Your task to perform on an android device: turn off translation in the chrome app Image 0: 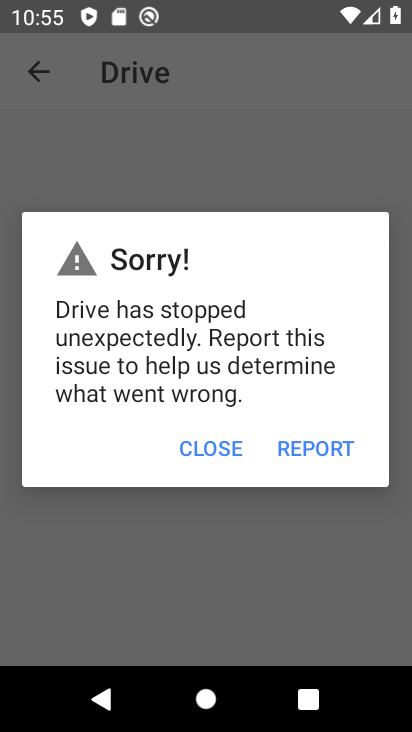
Step 0: press home button
Your task to perform on an android device: turn off translation in the chrome app Image 1: 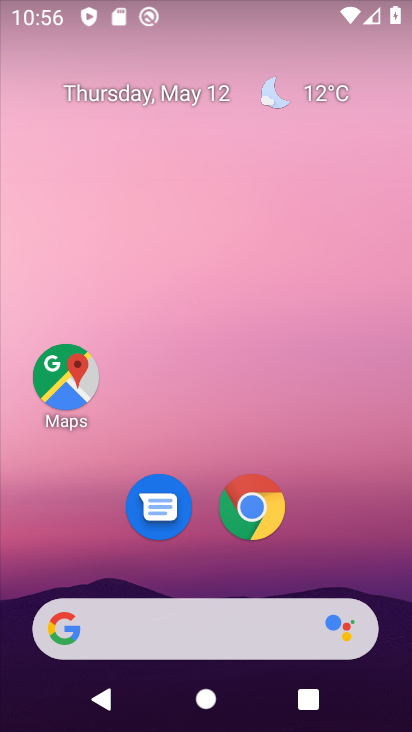
Step 1: drag from (196, 520) to (285, 155)
Your task to perform on an android device: turn off translation in the chrome app Image 2: 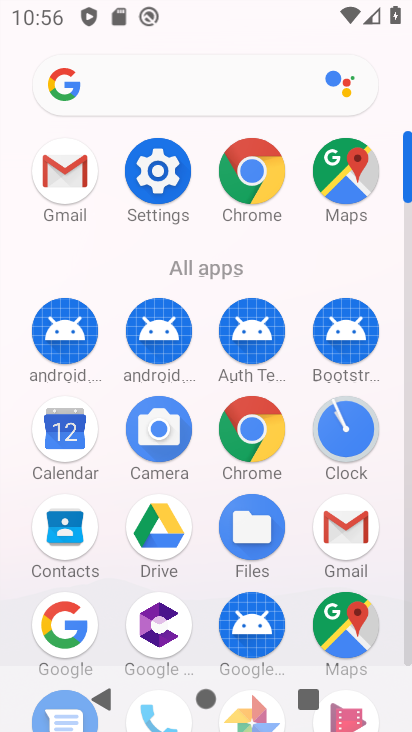
Step 2: click (255, 434)
Your task to perform on an android device: turn off translation in the chrome app Image 3: 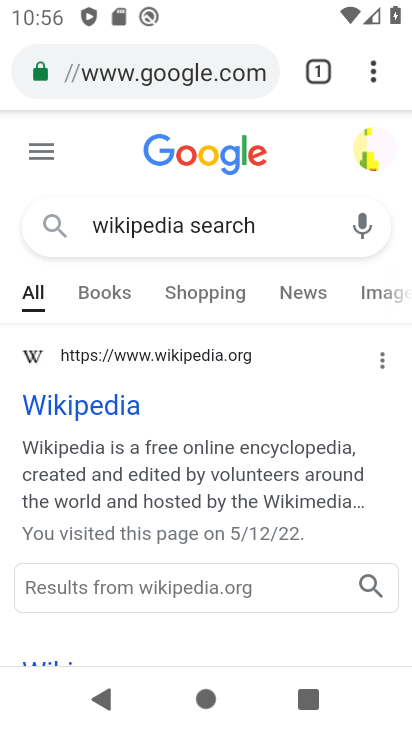
Step 3: click (376, 85)
Your task to perform on an android device: turn off translation in the chrome app Image 4: 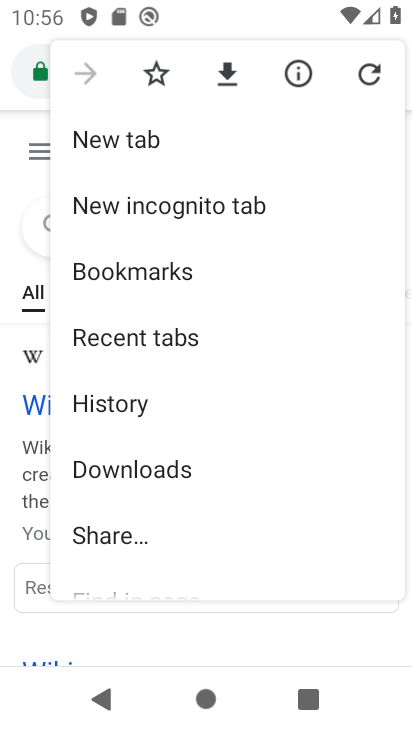
Step 4: drag from (146, 484) to (202, 238)
Your task to perform on an android device: turn off translation in the chrome app Image 5: 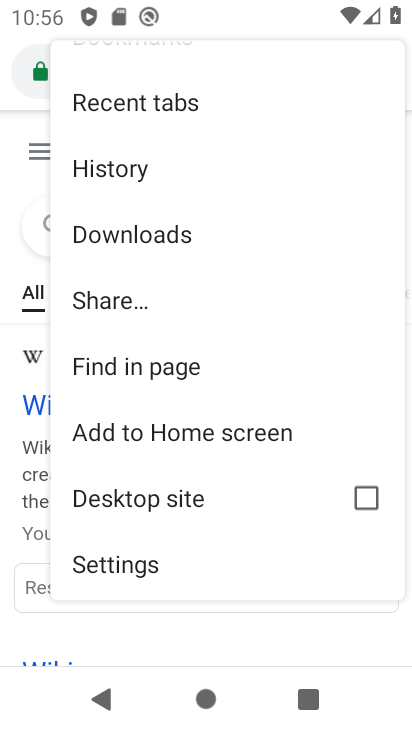
Step 5: click (122, 565)
Your task to perform on an android device: turn off translation in the chrome app Image 6: 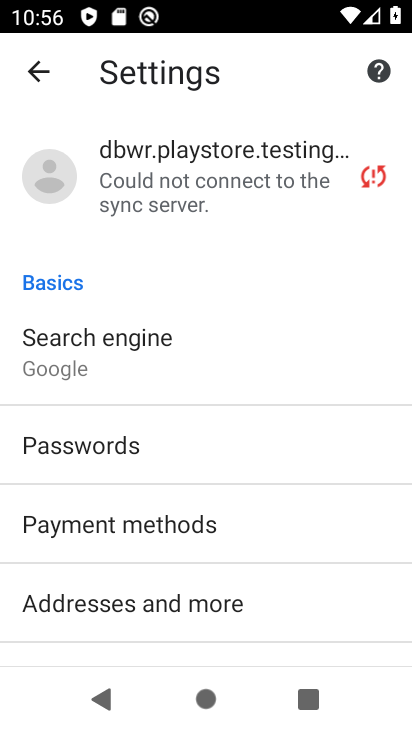
Step 6: drag from (118, 546) to (210, 175)
Your task to perform on an android device: turn off translation in the chrome app Image 7: 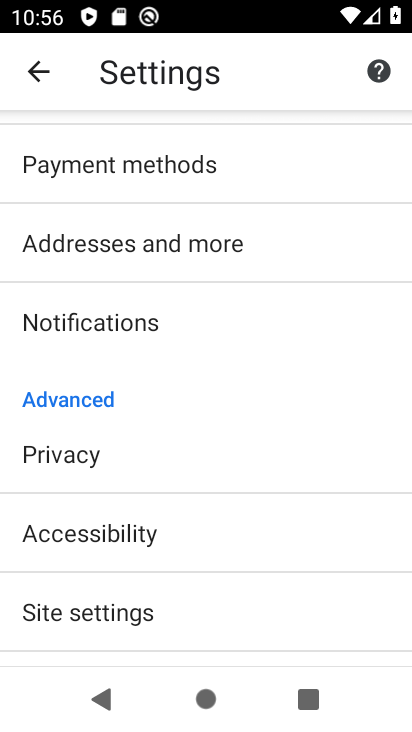
Step 7: drag from (101, 519) to (143, 71)
Your task to perform on an android device: turn off translation in the chrome app Image 8: 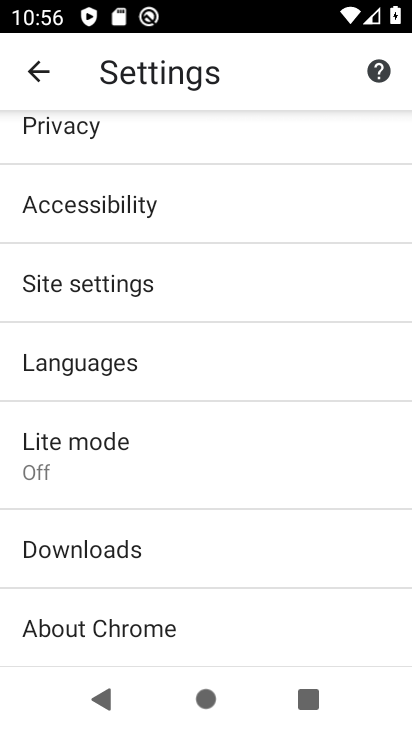
Step 8: drag from (87, 480) to (127, 348)
Your task to perform on an android device: turn off translation in the chrome app Image 9: 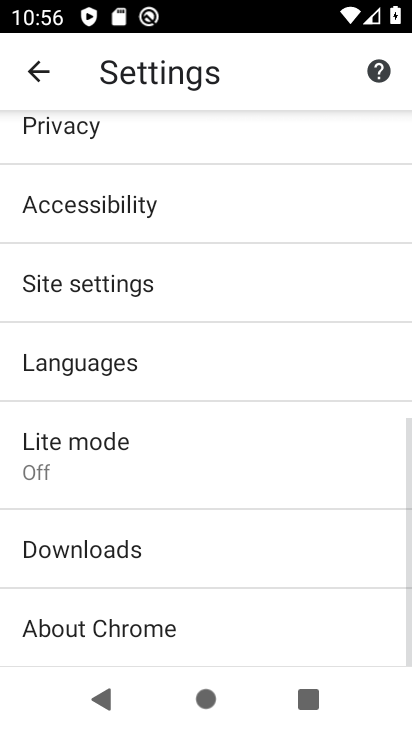
Step 9: click (116, 359)
Your task to perform on an android device: turn off translation in the chrome app Image 10: 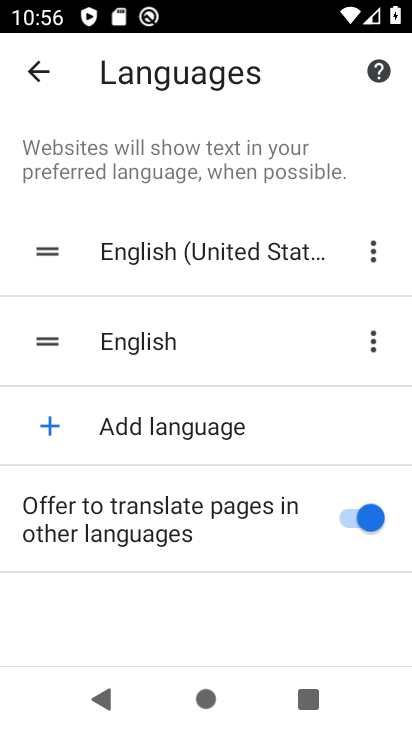
Step 10: click (329, 525)
Your task to perform on an android device: turn off translation in the chrome app Image 11: 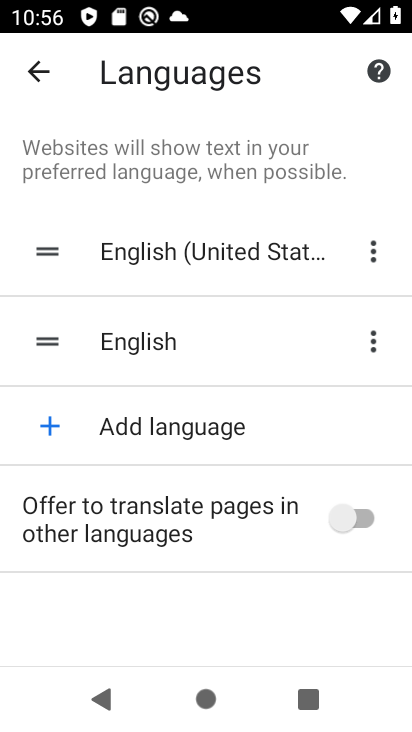
Step 11: task complete